Your task to perform on an android device: turn off javascript in the chrome app Image 0: 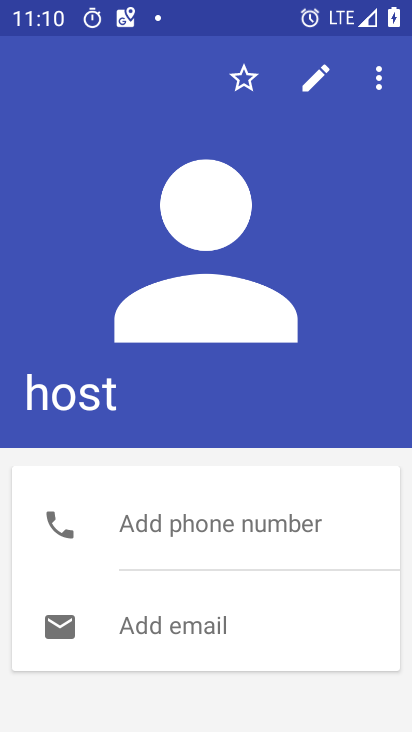
Step 0: press home button
Your task to perform on an android device: turn off javascript in the chrome app Image 1: 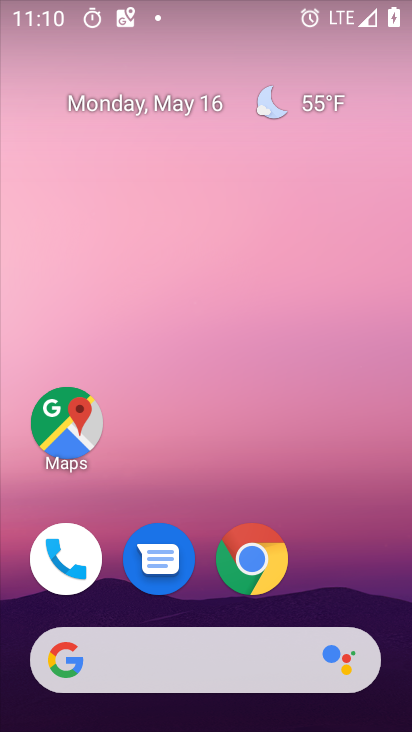
Step 1: click (266, 558)
Your task to perform on an android device: turn off javascript in the chrome app Image 2: 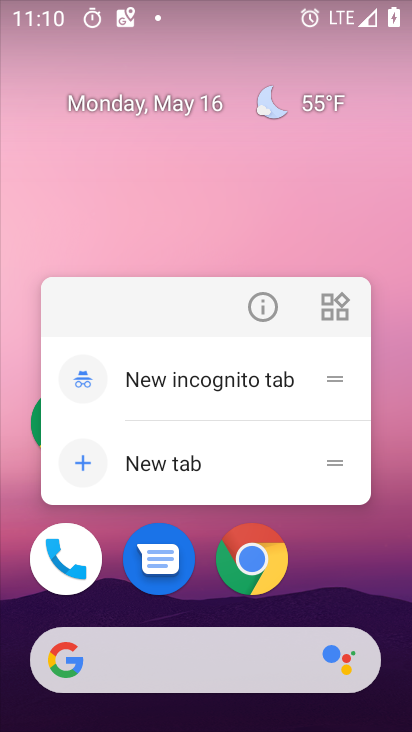
Step 2: click (253, 559)
Your task to perform on an android device: turn off javascript in the chrome app Image 3: 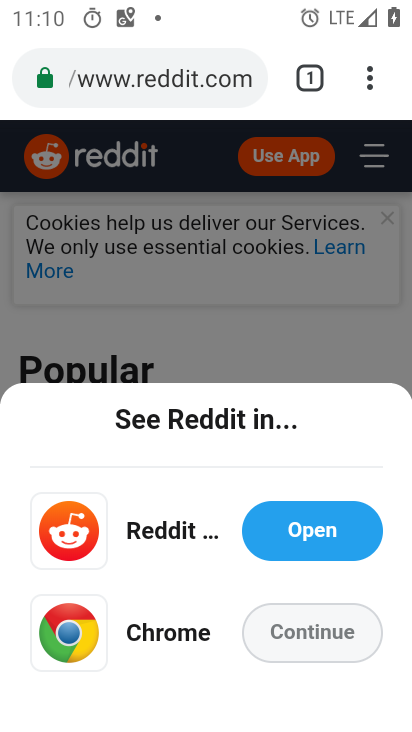
Step 3: click (371, 80)
Your task to perform on an android device: turn off javascript in the chrome app Image 4: 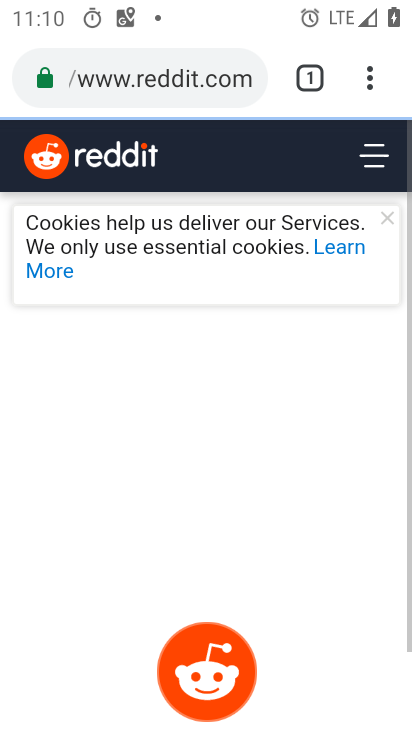
Step 4: drag from (376, 79) to (250, 615)
Your task to perform on an android device: turn off javascript in the chrome app Image 5: 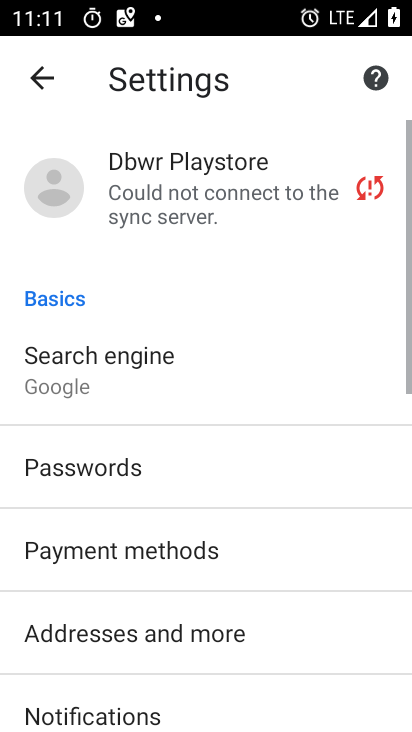
Step 5: drag from (266, 582) to (274, 85)
Your task to perform on an android device: turn off javascript in the chrome app Image 6: 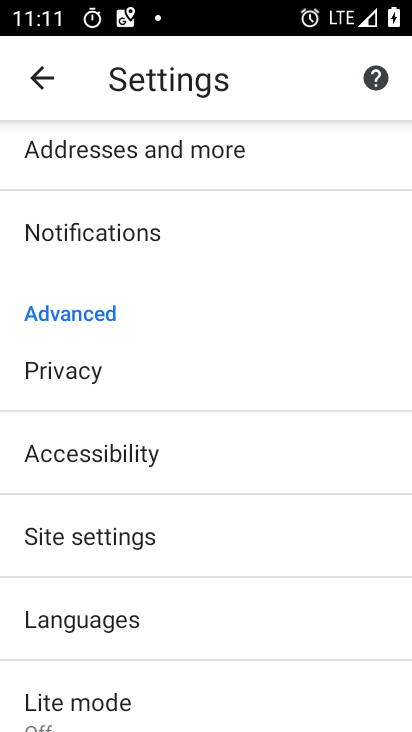
Step 6: click (110, 529)
Your task to perform on an android device: turn off javascript in the chrome app Image 7: 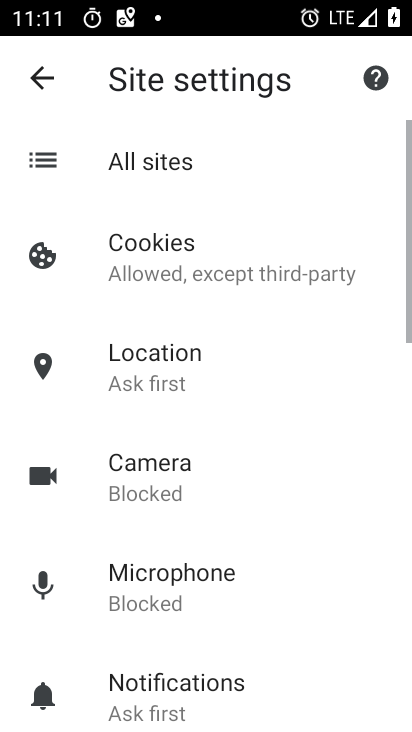
Step 7: drag from (258, 596) to (278, 137)
Your task to perform on an android device: turn off javascript in the chrome app Image 8: 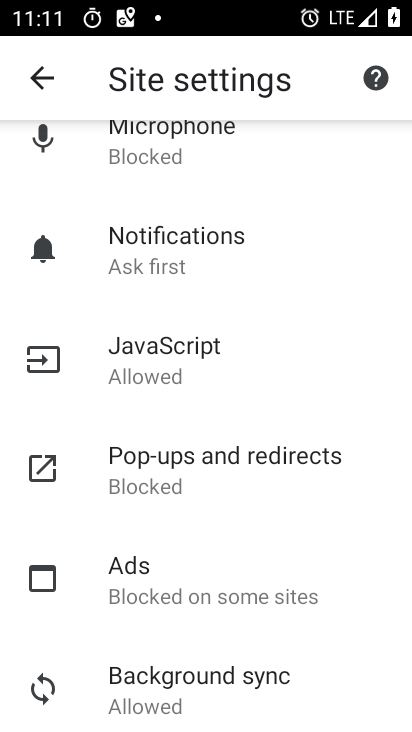
Step 8: click (194, 357)
Your task to perform on an android device: turn off javascript in the chrome app Image 9: 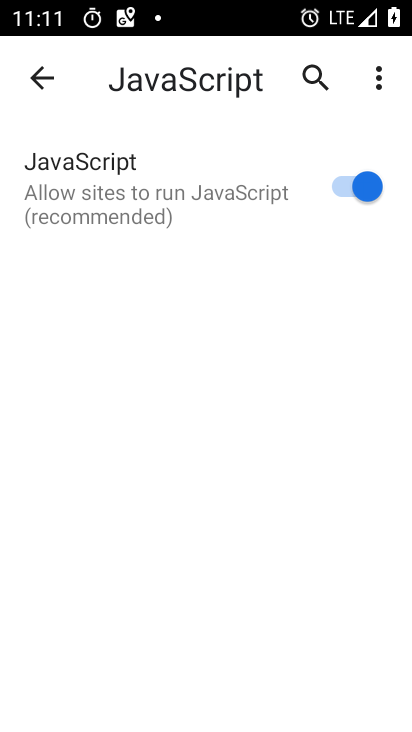
Step 9: click (365, 193)
Your task to perform on an android device: turn off javascript in the chrome app Image 10: 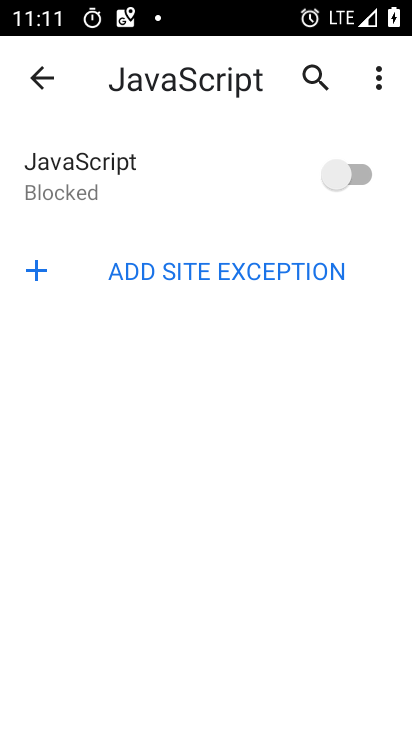
Step 10: task complete